Your task to perform on an android device: make emails show in primary in the gmail app Image 0: 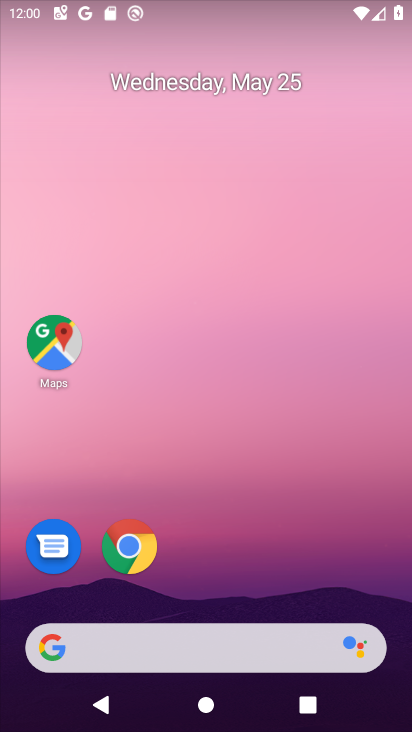
Step 0: drag from (204, 495) to (374, 256)
Your task to perform on an android device: make emails show in primary in the gmail app Image 1: 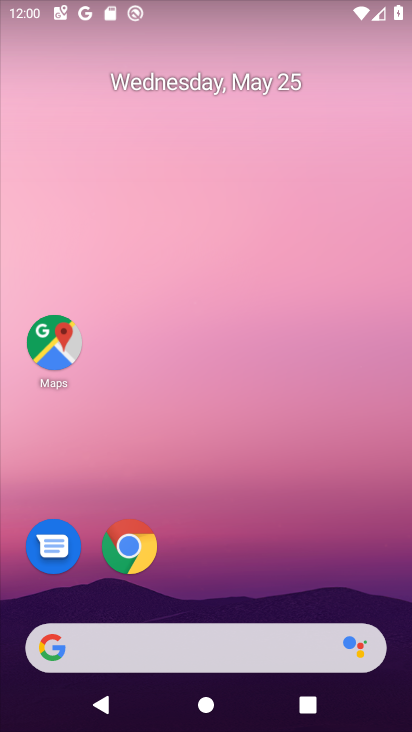
Step 1: drag from (201, 556) to (273, 59)
Your task to perform on an android device: make emails show in primary in the gmail app Image 2: 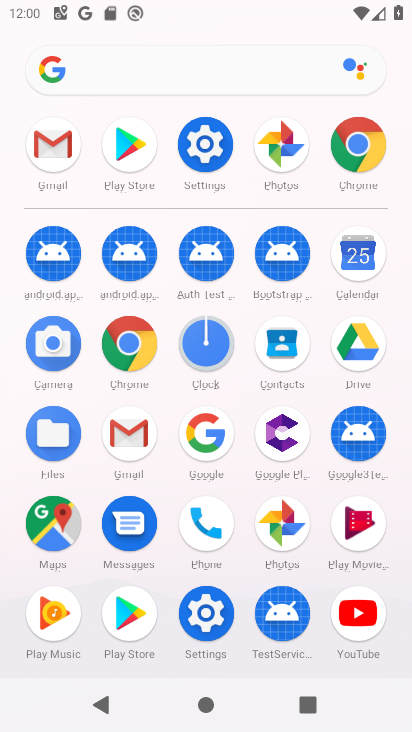
Step 2: click (132, 440)
Your task to perform on an android device: make emails show in primary in the gmail app Image 3: 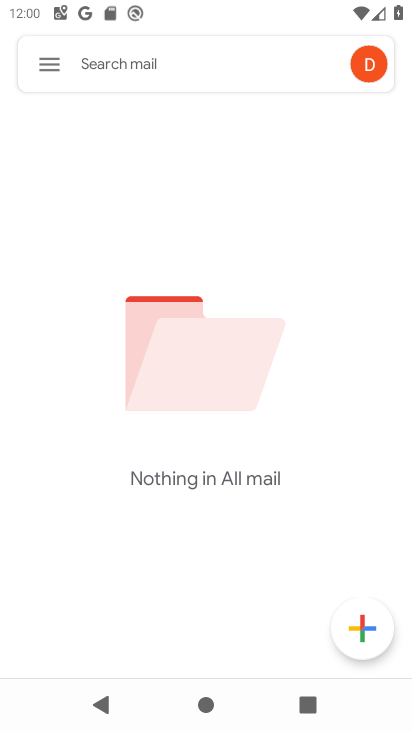
Step 3: click (50, 62)
Your task to perform on an android device: make emails show in primary in the gmail app Image 4: 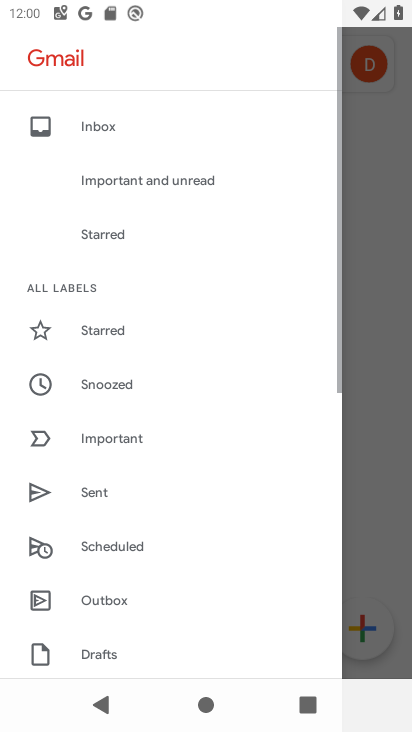
Step 4: drag from (109, 545) to (210, 69)
Your task to perform on an android device: make emails show in primary in the gmail app Image 5: 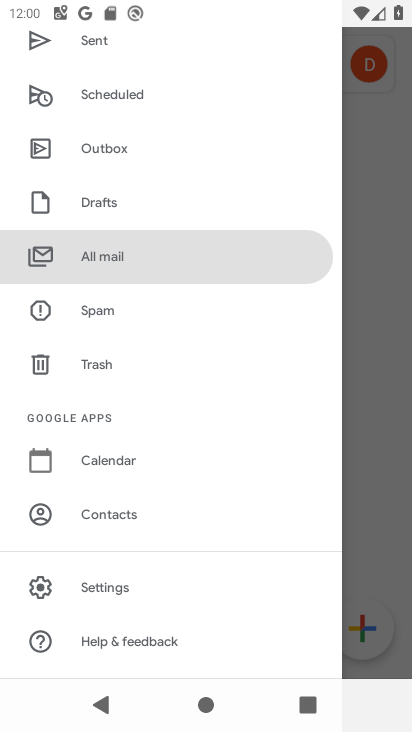
Step 5: click (108, 596)
Your task to perform on an android device: make emails show in primary in the gmail app Image 6: 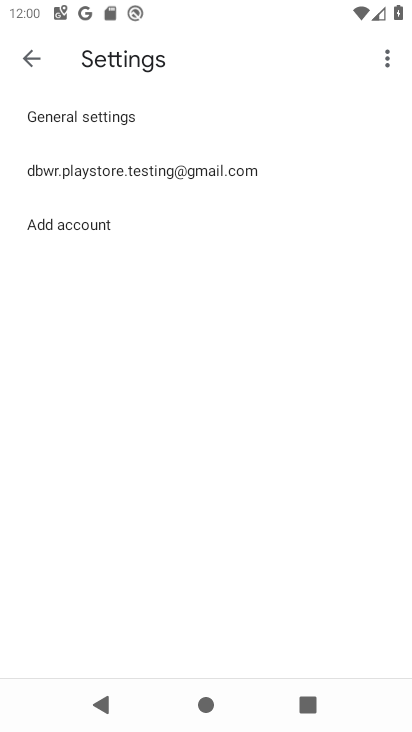
Step 6: click (145, 171)
Your task to perform on an android device: make emails show in primary in the gmail app Image 7: 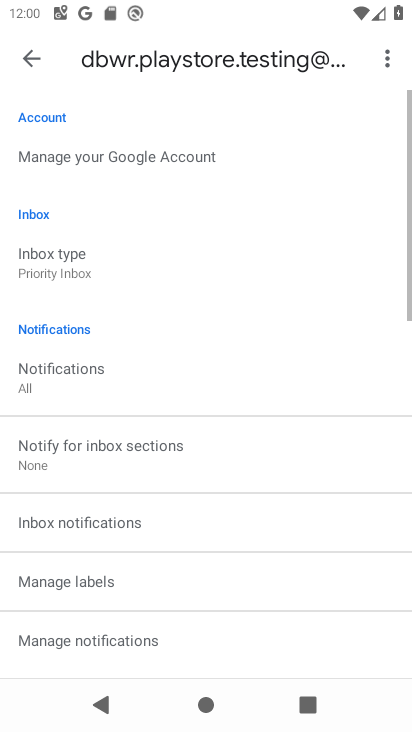
Step 7: click (86, 267)
Your task to perform on an android device: make emails show in primary in the gmail app Image 8: 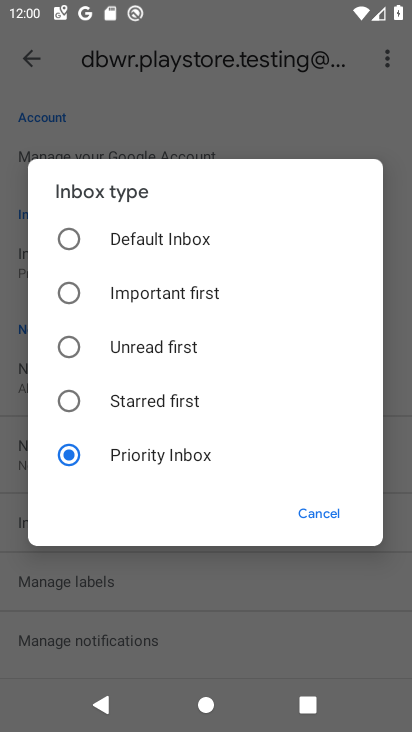
Step 8: click (149, 241)
Your task to perform on an android device: make emails show in primary in the gmail app Image 9: 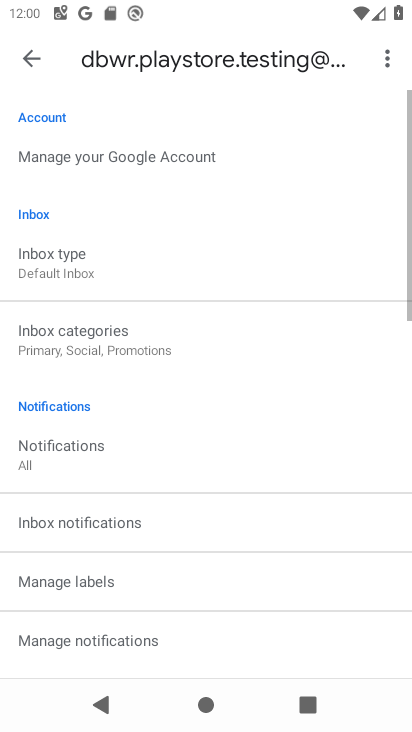
Step 9: click (145, 346)
Your task to perform on an android device: make emails show in primary in the gmail app Image 10: 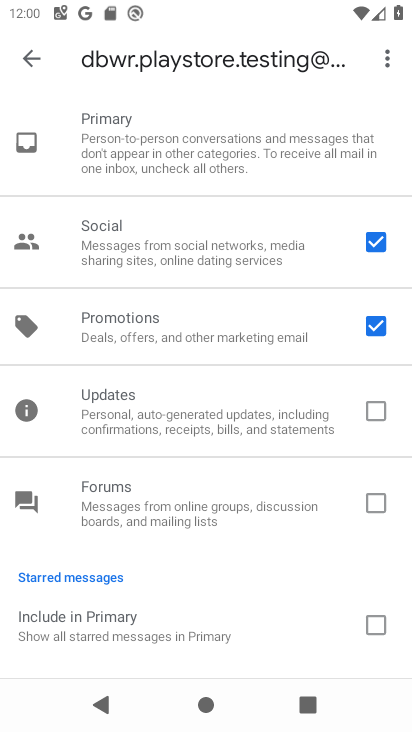
Step 10: click (362, 228)
Your task to perform on an android device: make emails show in primary in the gmail app Image 11: 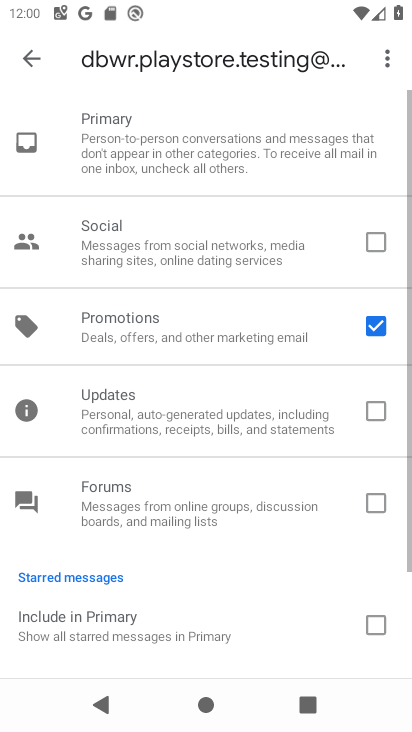
Step 11: click (374, 323)
Your task to perform on an android device: make emails show in primary in the gmail app Image 12: 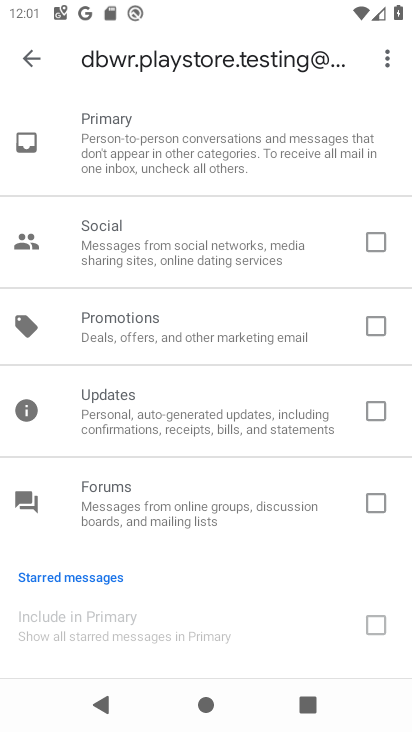
Step 12: task complete